Your task to perform on an android device: toggle pop-ups in chrome Image 0: 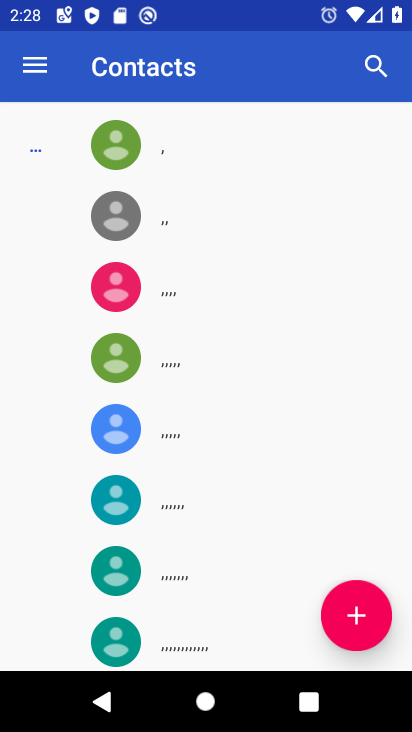
Step 0: press home button
Your task to perform on an android device: toggle pop-ups in chrome Image 1: 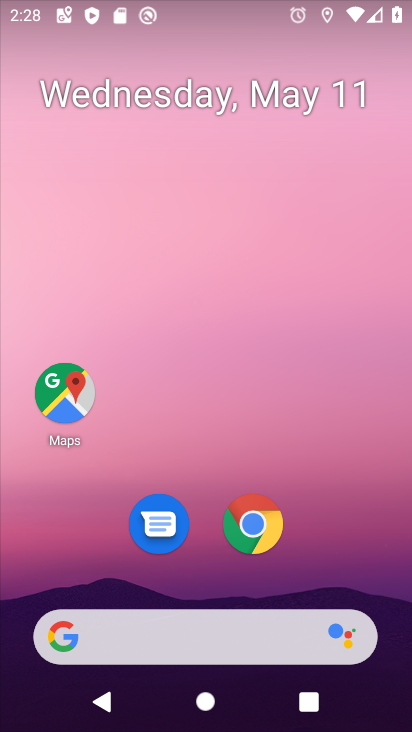
Step 1: drag from (311, 552) to (321, 64)
Your task to perform on an android device: toggle pop-ups in chrome Image 2: 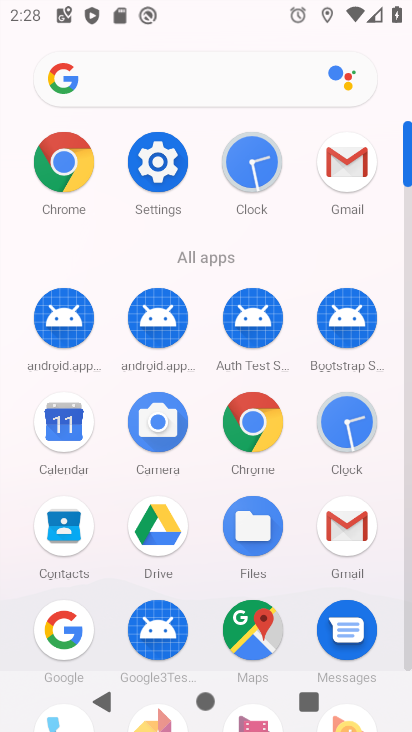
Step 2: click (74, 166)
Your task to perform on an android device: toggle pop-ups in chrome Image 3: 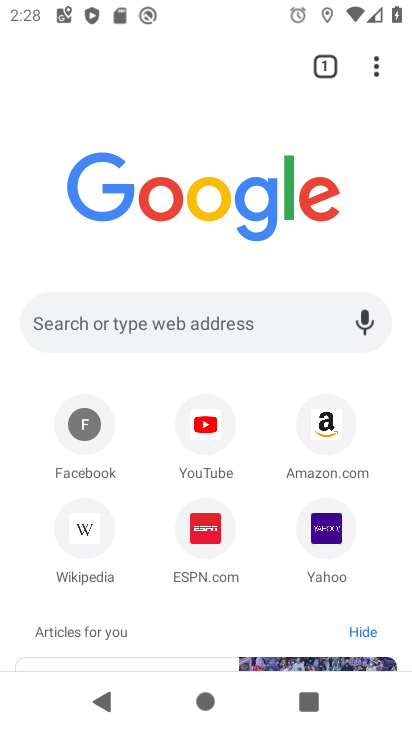
Step 3: click (369, 62)
Your task to perform on an android device: toggle pop-ups in chrome Image 4: 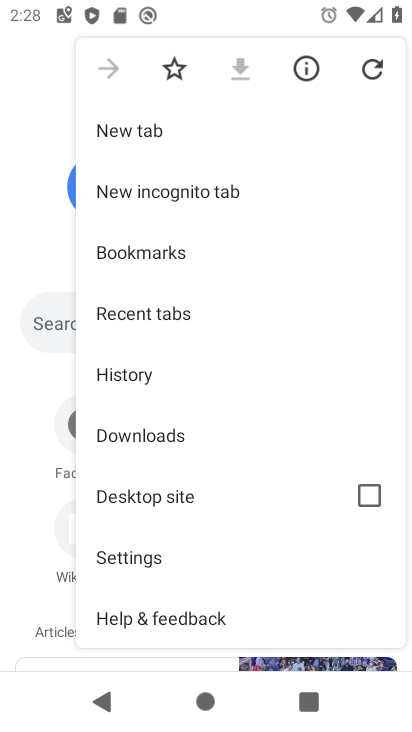
Step 4: click (165, 555)
Your task to perform on an android device: toggle pop-ups in chrome Image 5: 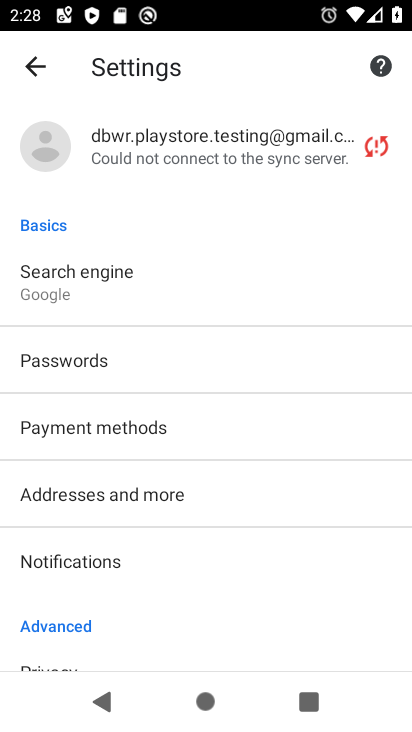
Step 5: drag from (143, 624) to (265, 266)
Your task to perform on an android device: toggle pop-ups in chrome Image 6: 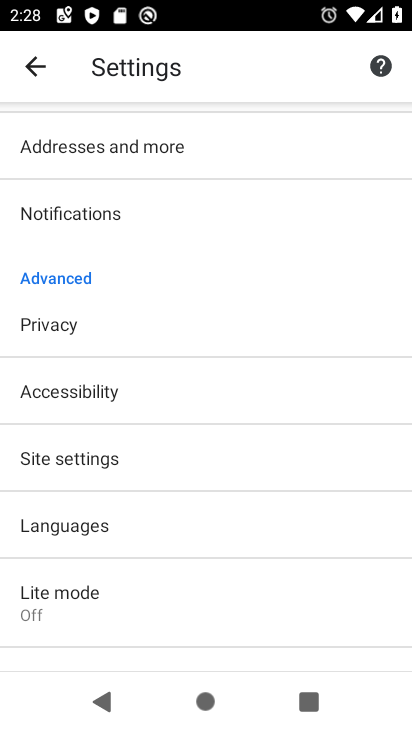
Step 6: click (197, 456)
Your task to perform on an android device: toggle pop-ups in chrome Image 7: 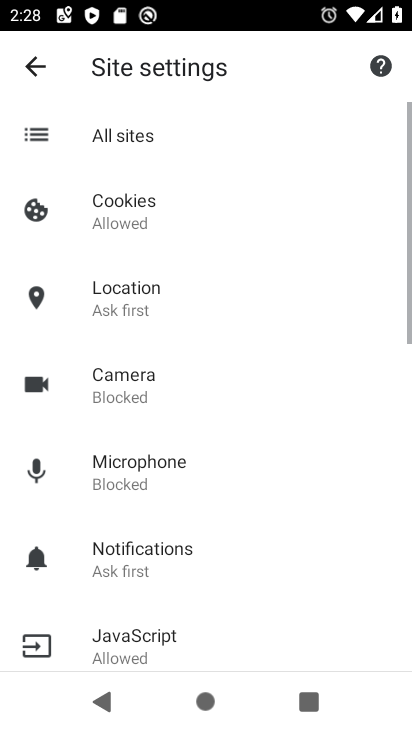
Step 7: drag from (264, 580) to (294, 216)
Your task to perform on an android device: toggle pop-ups in chrome Image 8: 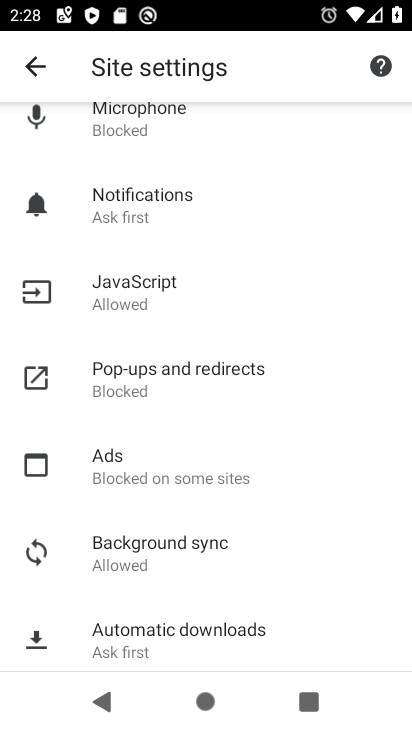
Step 8: click (211, 372)
Your task to perform on an android device: toggle pop-ups in chrome Image 9: 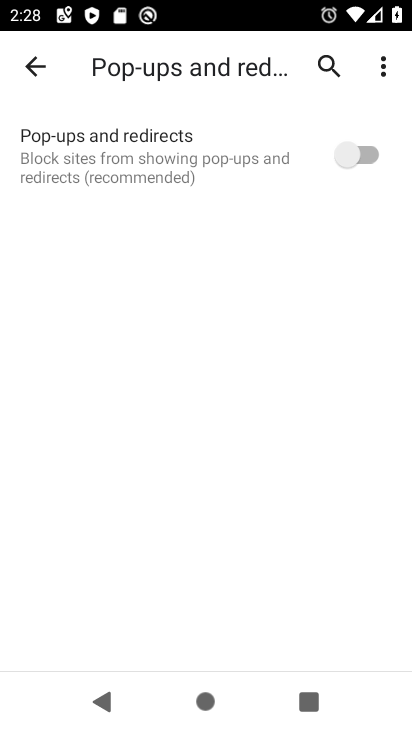
Step 9: click (370, 144)
Your task to perform on an android device: toggle pop-ups in chrome Image 10: 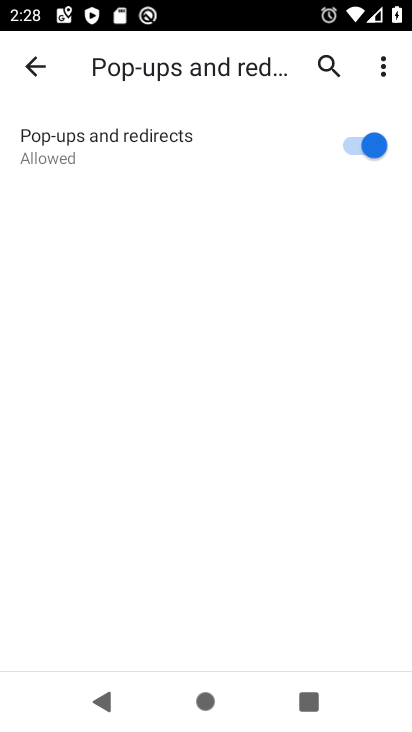
Step 10: task complete